Your task to perform on an android device: Do I have any events tomorrow? Image 0: 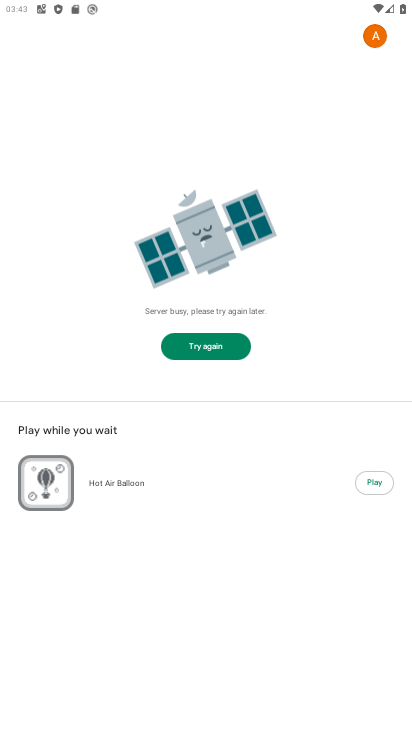
Step 0: press home button
Your task to perform on an android device: Do I have any events tomorrow? Image 1: 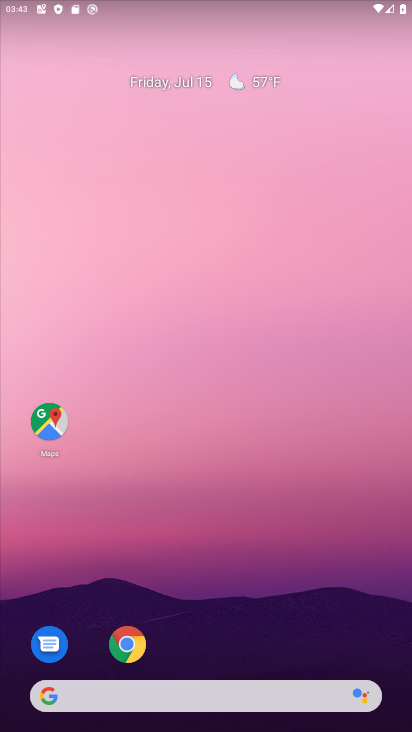
Step 1: drag from (297, 651) to (190, 173)
Your task to perform on an android device: Do I have any events tomorrow? Image 2: 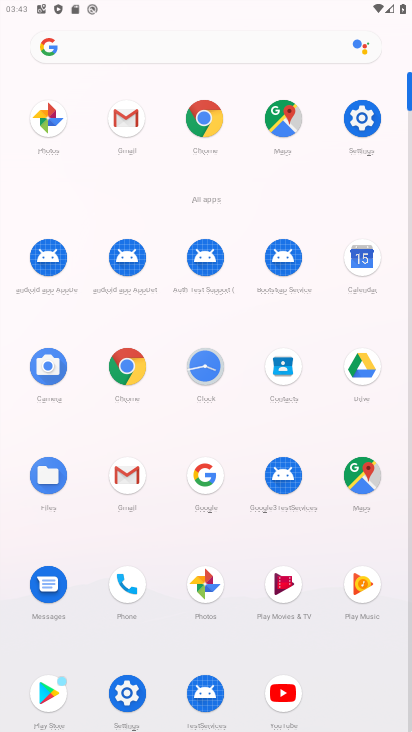
Step 2: click (358, 250)
Your task to perform on an android device: Do I have any events tomorrow? Image 3: 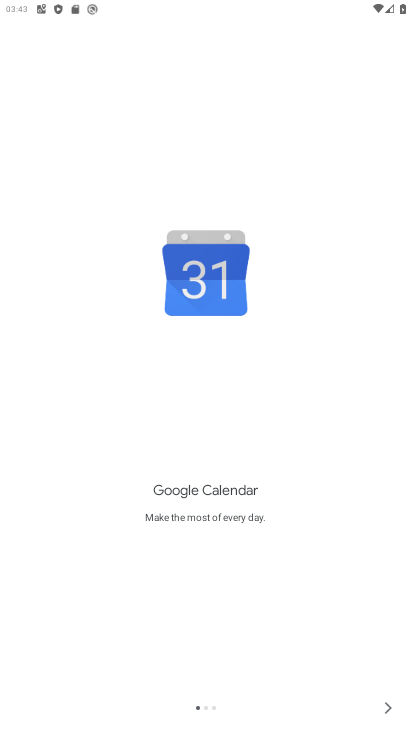
Step 3: click (389, 710)
Your task to perform on an android device: Do I have any events tomorrow? Image 4: 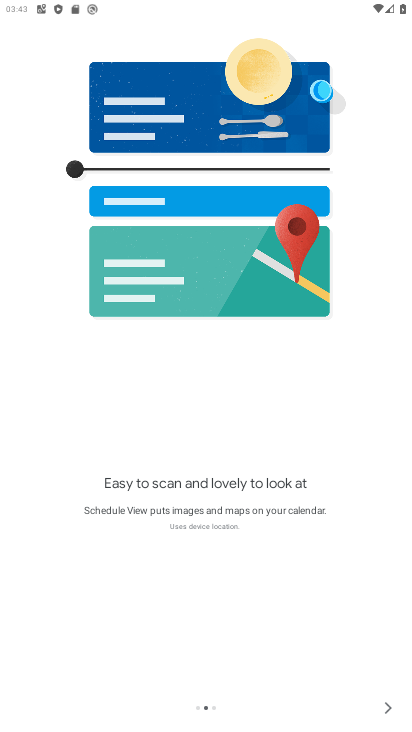
Step 4: click (389, 710)
Your task to perform on an android device: Do I have any events tomorrow? Image 5: 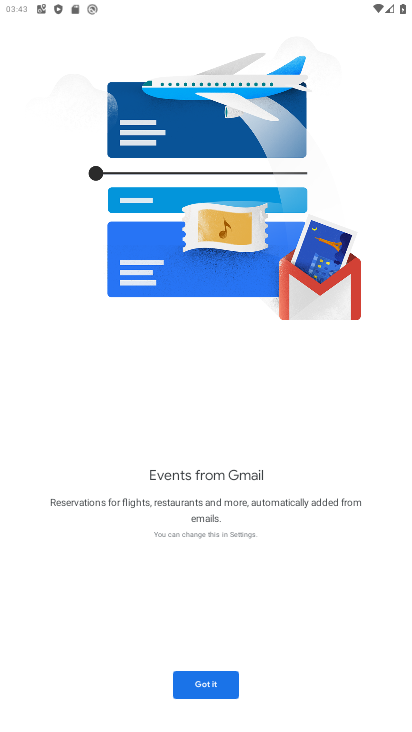
Step 5: click (213, 679)
Your task to perform on an android device: Do I have any events tomorrow? Image 6: 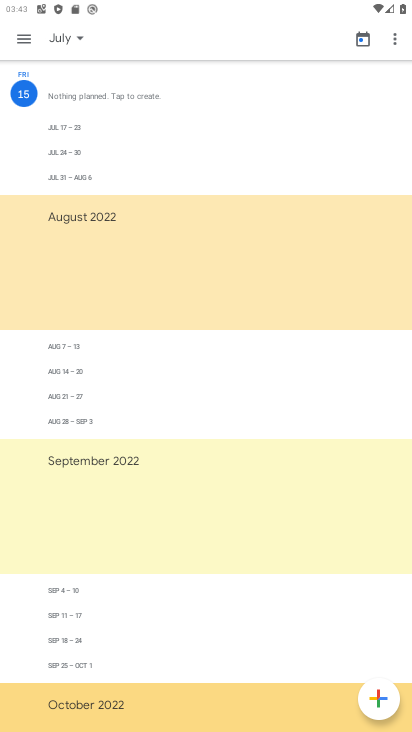
Step 6: click (18, 36)
Your task to perform on an android device: Do I have any events tomorrow? Image 7: 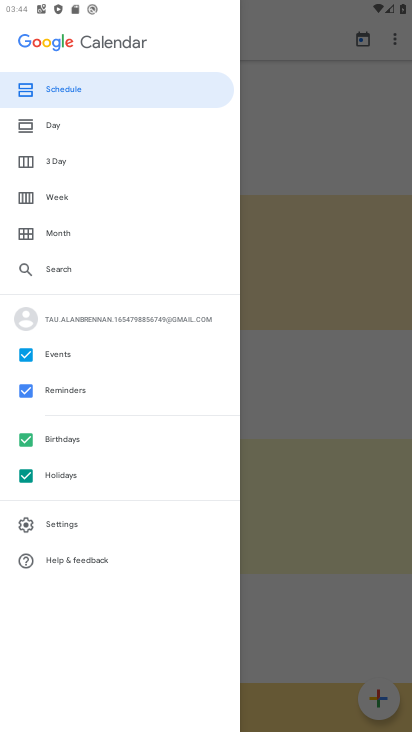
Step 7: click (31, 478)
Your task to perform on an android device: Do I have any events tomorrow? Image 8: 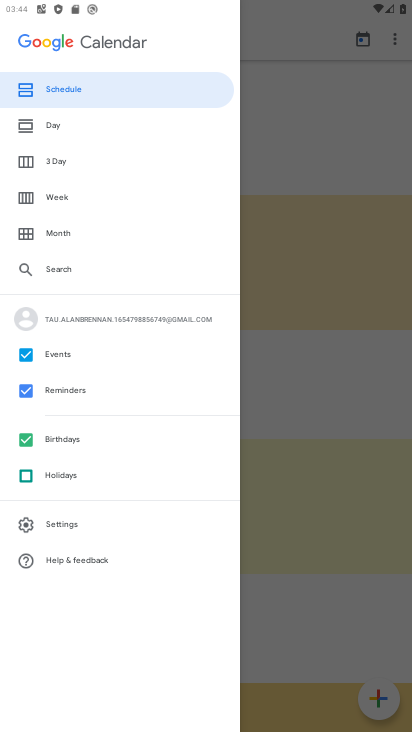
Step 8: click (30, 434)
Your task to perform on an android device: Do I have any events tomorrow? Image 9: 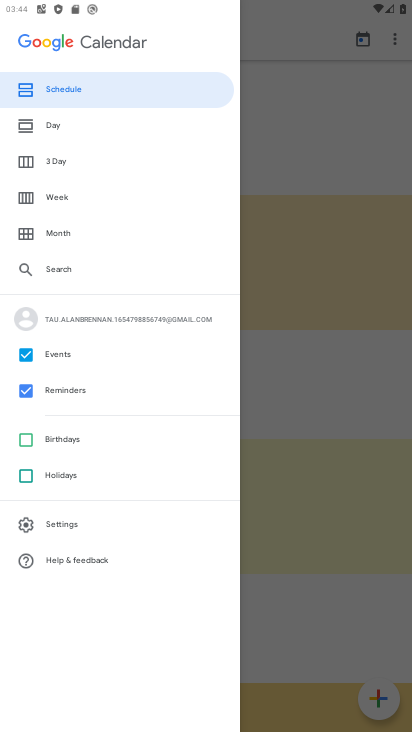
Step 9: click (27, 390)
Your task to perform on an android device: Do I have any events tomorrow? Image 10: 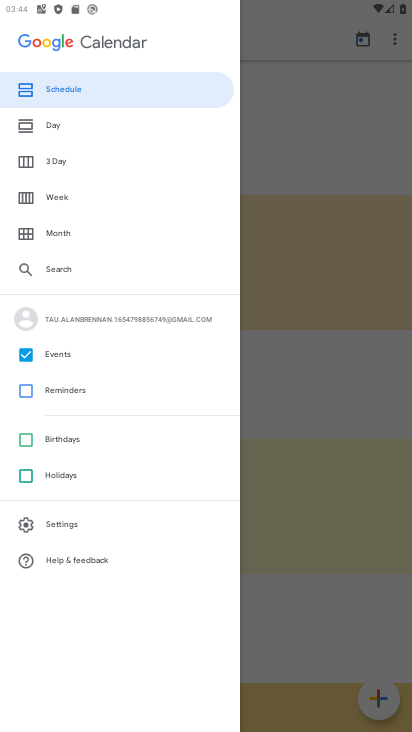
Step 10: click (59, 126)
Your task to perform on an android device: Do I have any events tomorrow? Image 11: 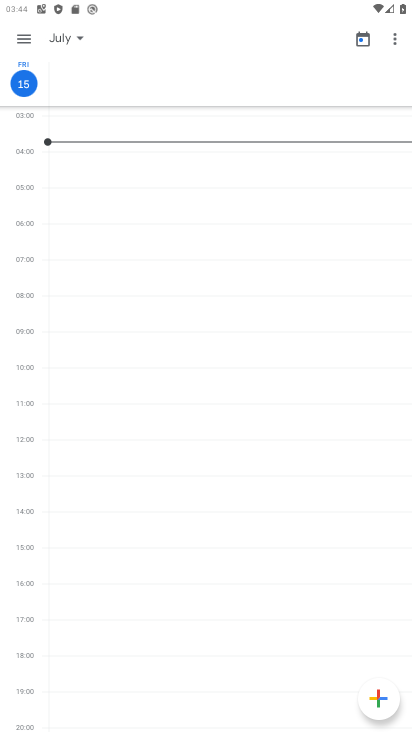
Step 11: task complete